Your task to perform on an android device: Open wifi settings Image 0: 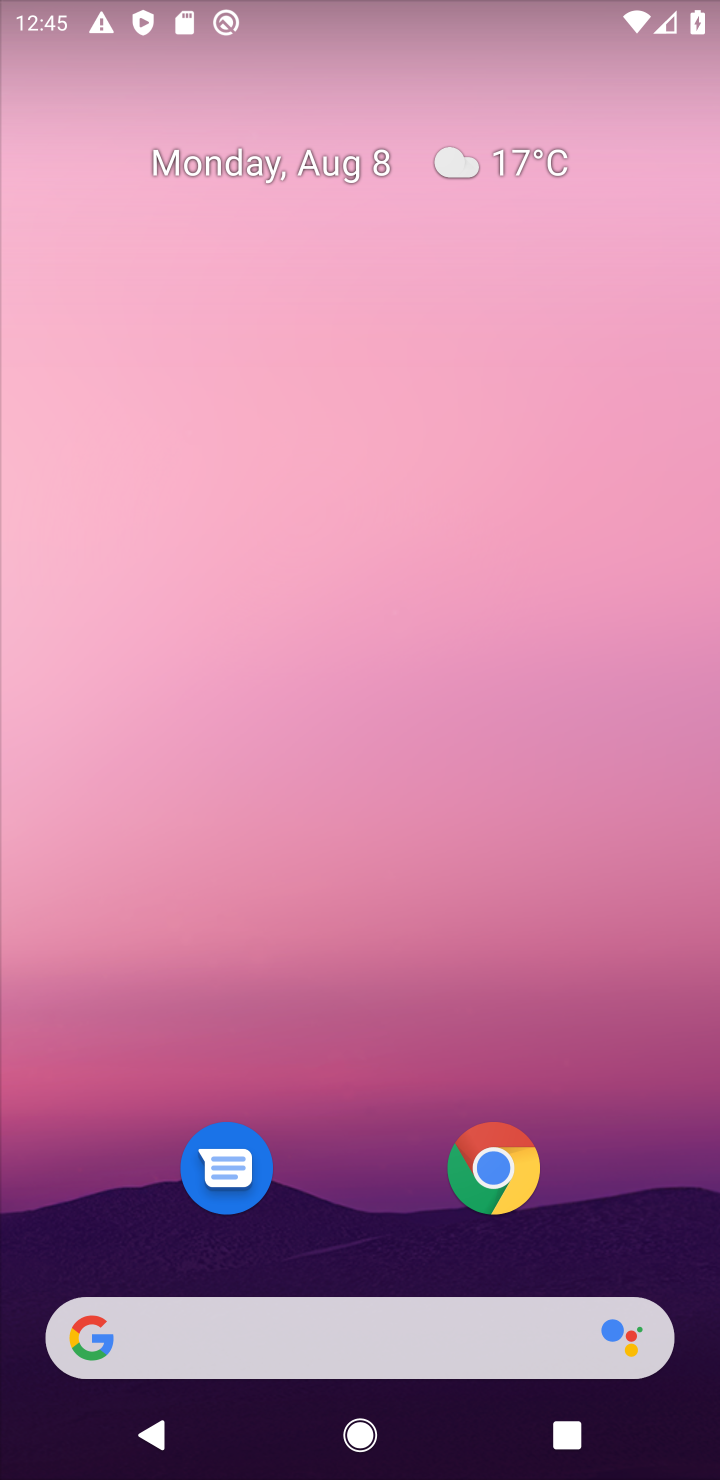
Step 0: drag from (110, 1249) to (156, 583)
Your task to perform on an android device: Open wifi settings Image 1: 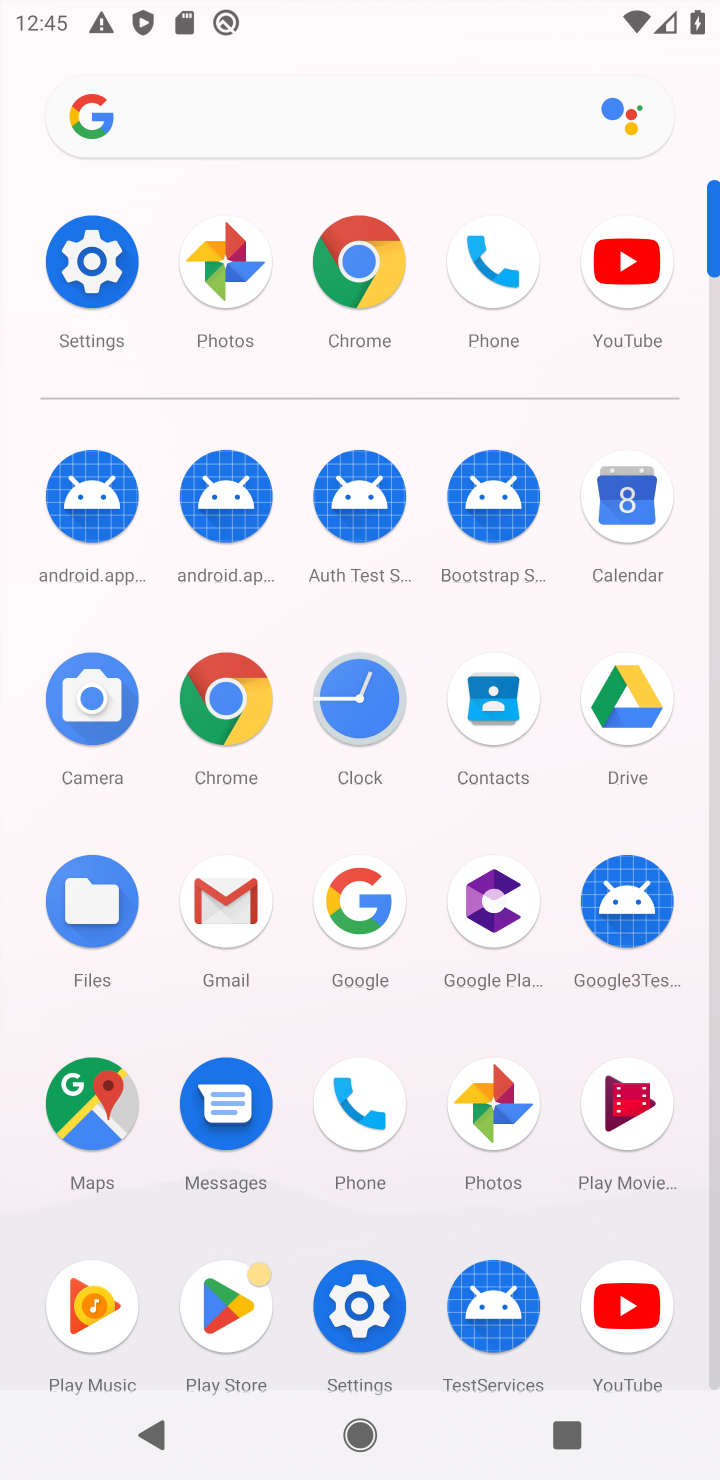
Step 1: click (99, 283)
Your task to perform on an android device: Open wifi settings Image 2: 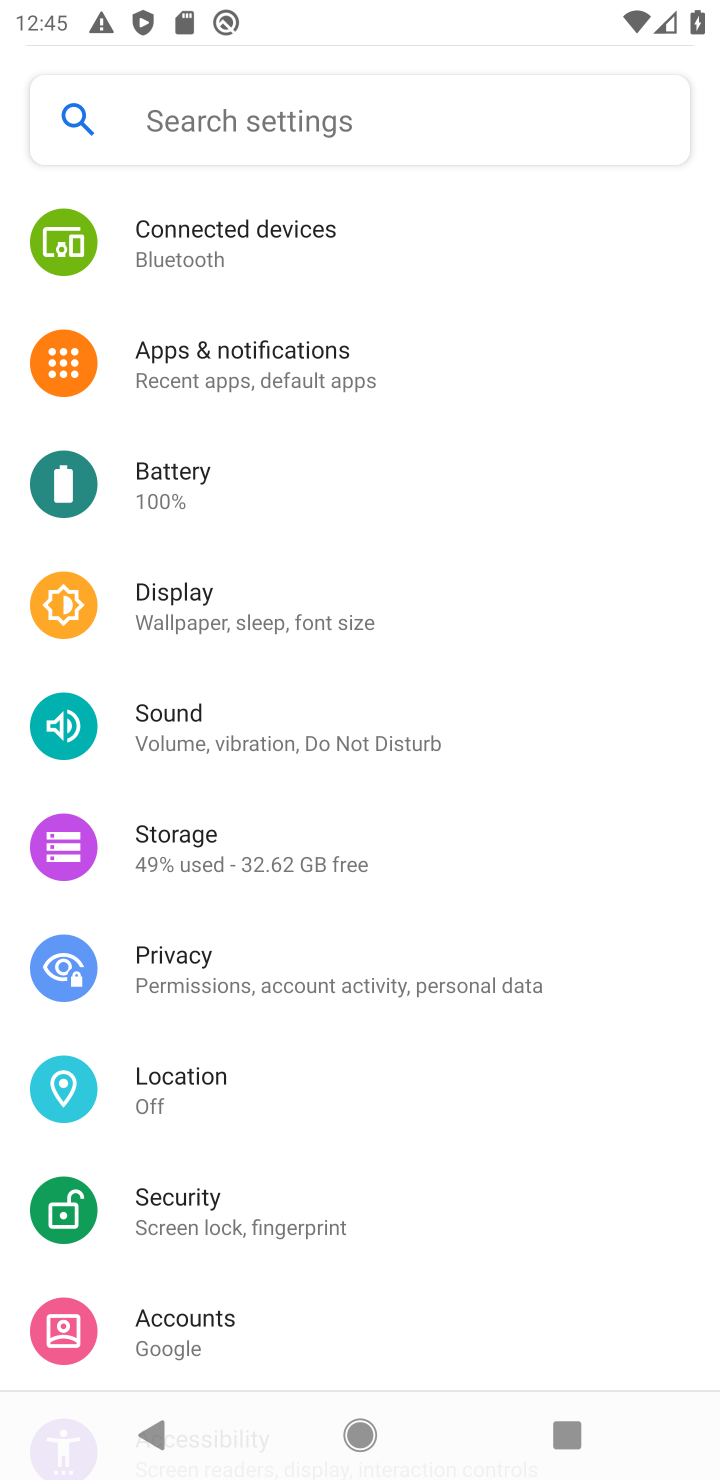
Step 2: drag from (537, 225) to (542, 1087)
Your task to perform on an android device: Open wifi settings Image 3: 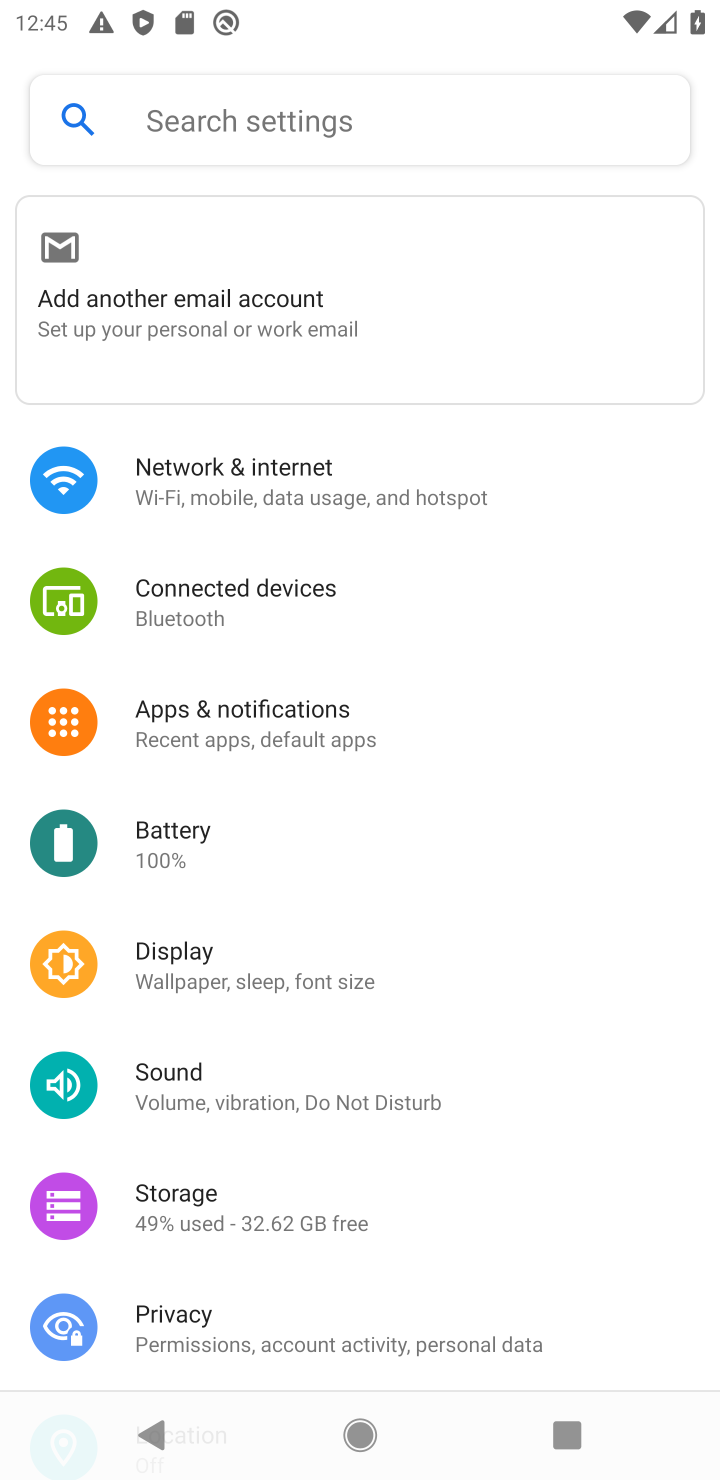
Step 3: click (170, 478)
Your task to perform on an android device: Open wifi settings Image 4: 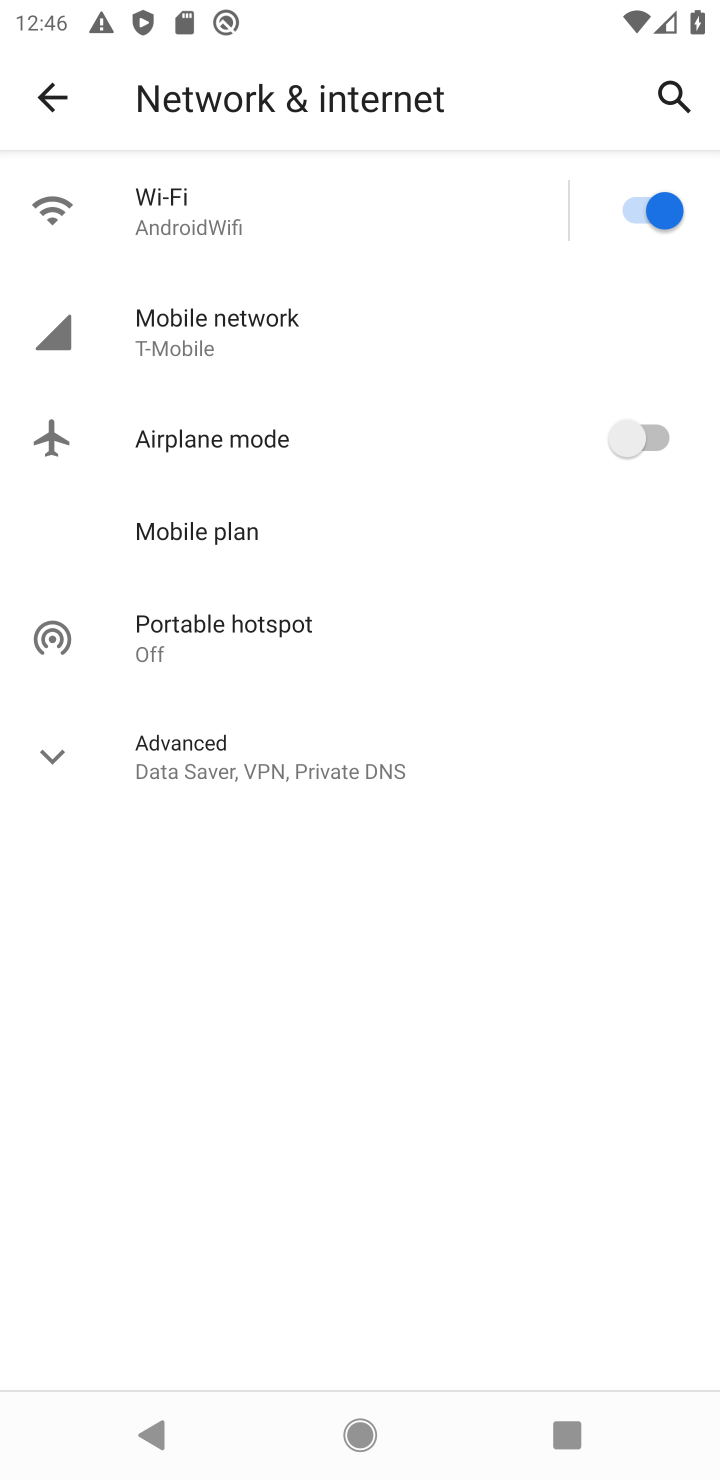
Step 4: task complete